Your task to perform on an android device: Show me popular games on the Play Store Image 0: 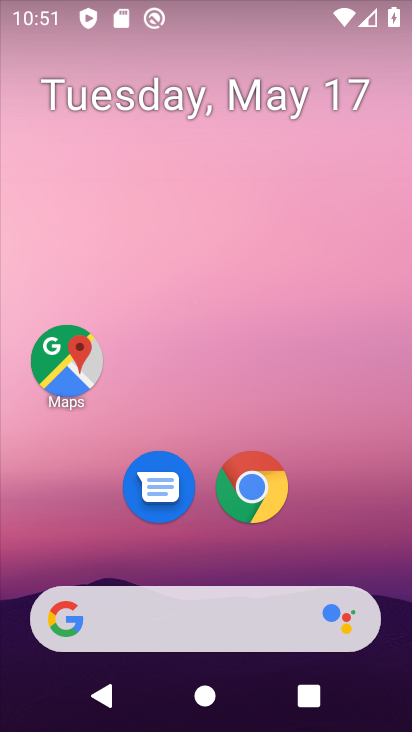
Step 0: press home button
Your task to perform on an android device: Show me popular games on the Play Store Image 1: 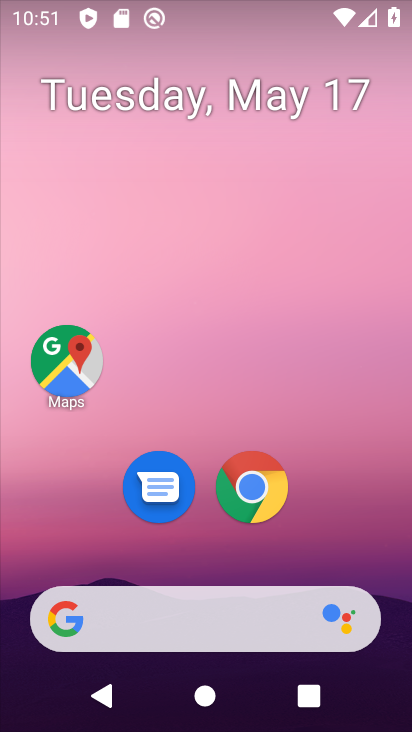
Step 1: drag from (354, 525) to (317, 95)
Your task to perform on an android device: Show me popular games on the Play Store Image 2: 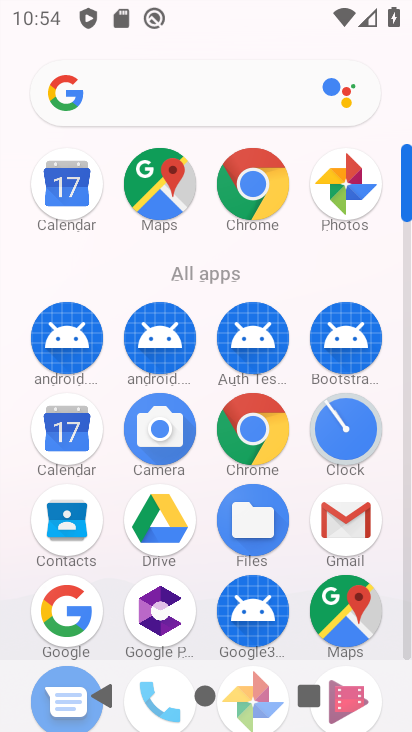
Step 2: click (404, 647)
Your task to perform on an android device: Show me popular games on the Play Store Image 3: 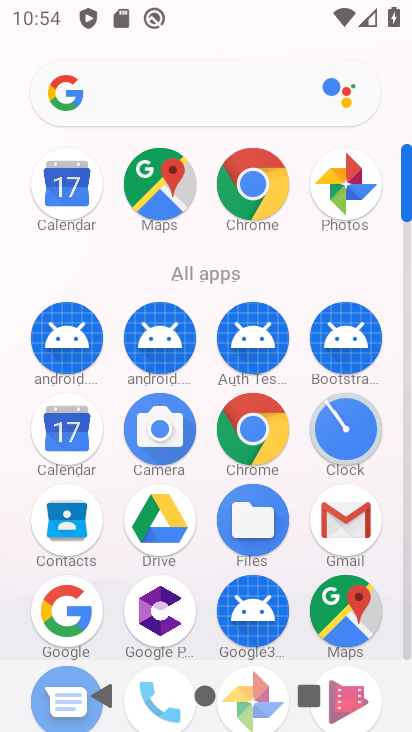
Step 3: click (404, 647)
Your task to perform on an android device: Show me popular games on the Play Store Image 4: 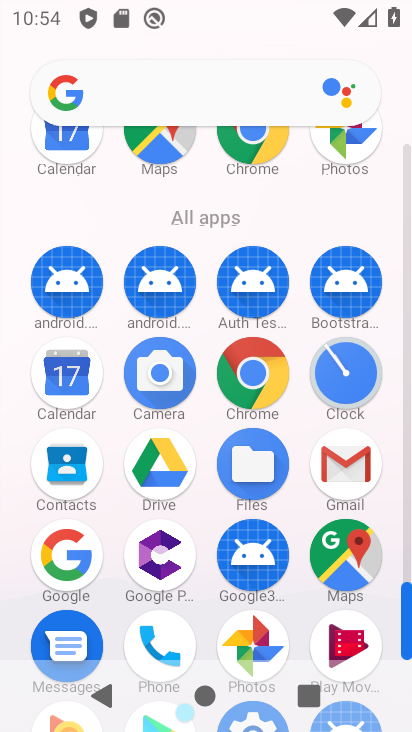
Step 4: click (404, 647)
Your task to perform on an android device: Show me popular games on the Play Store Image 5: 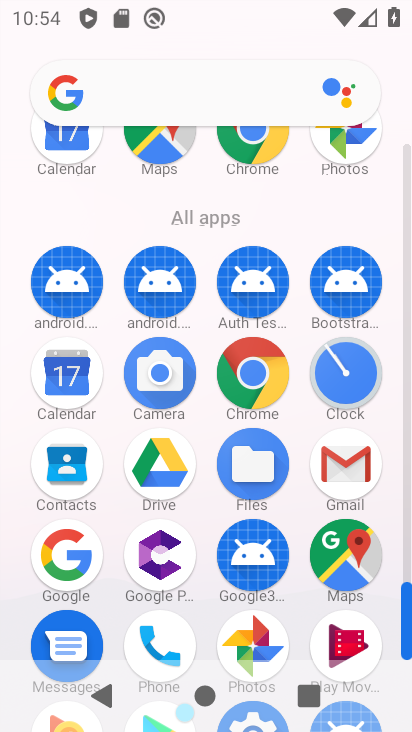
Step 5: click (404, 647)
Your task to perform on an android device: Show me popular games on the Play Store Image 6: 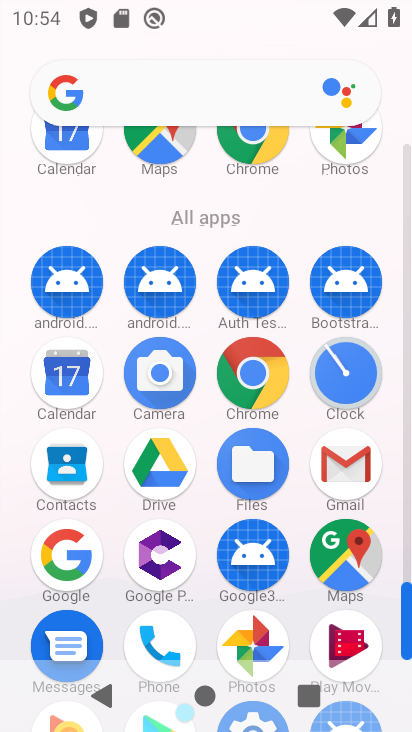
Step 6: click (404, 647)
Your task to perform on an android device: Show me popular games on the Play Store Image 7: 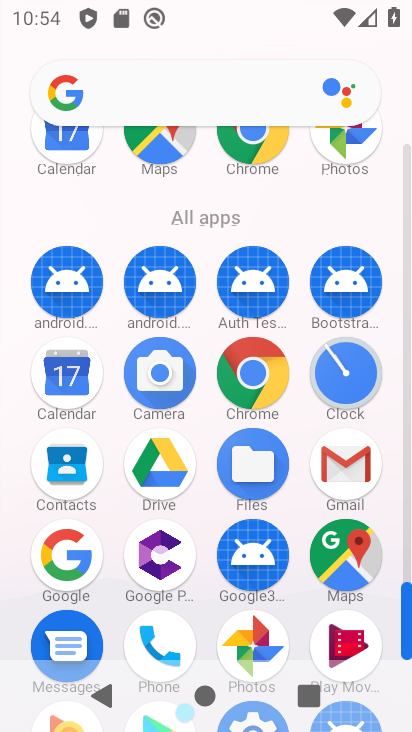
Step 7: click (404, 647)
Your task to perform on an android device: Show me popular games on the Play Store Image 8: 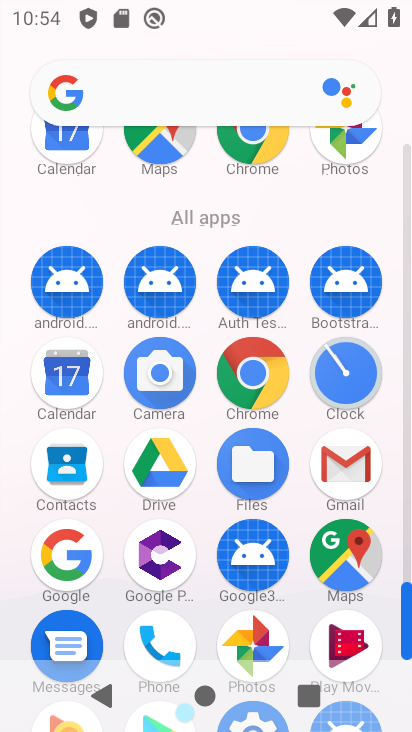
Step 8: drag from (404, 647) to (402, 501)
Your task to perform on an android device: Show me popular games on the Play Store Image 9: 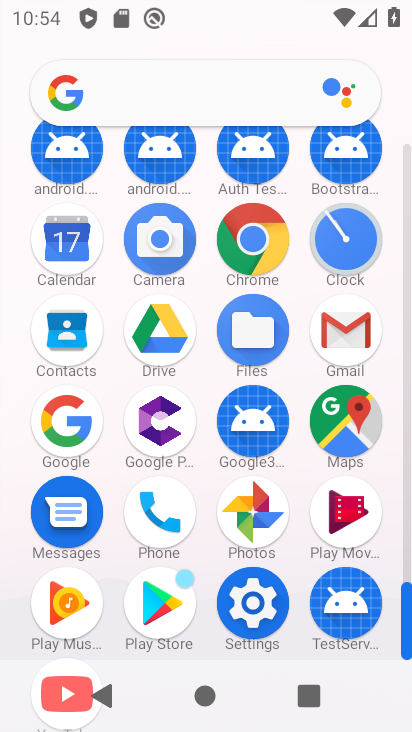
Step 9: click (153, 612)
Your task to perform on an android device: Show me popular games on the Play Store Image 10: 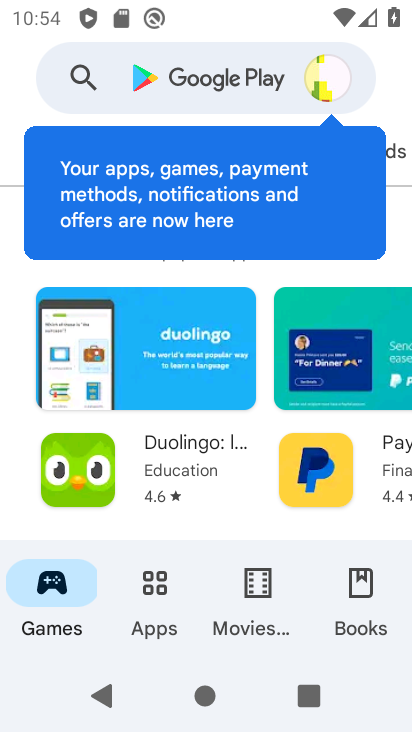
Step 10: click (202, 76)
Your task to perform on an android device: Show me popular games on the Play Store Image 11: 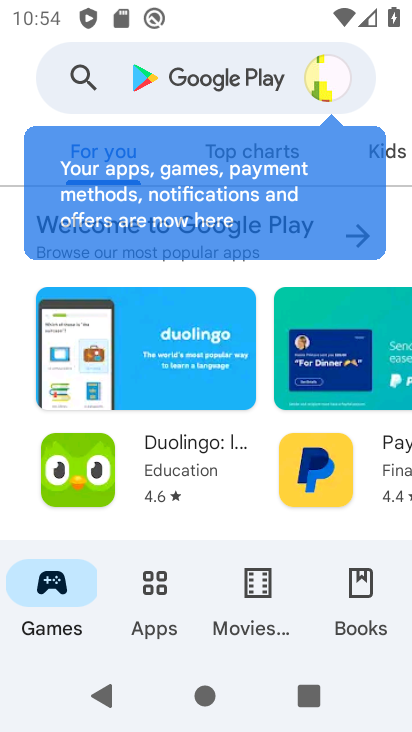
Step 11: click (202, 76)
Your task to perform on an android device: Show me popular games on the Play Store Image 12: 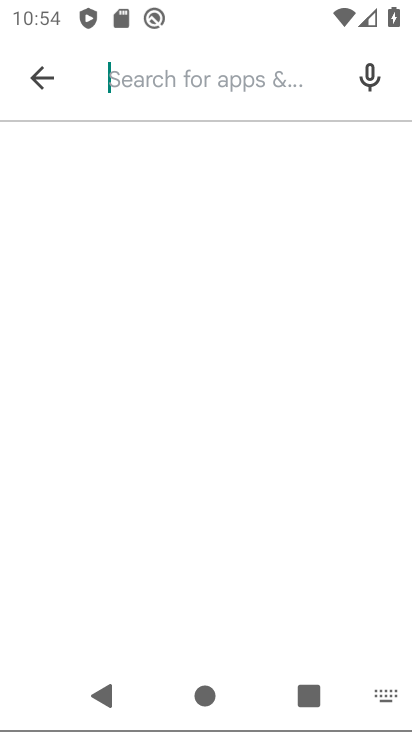
Step 12: click (202, 76)
Your task to perform on an android device: Show me popular games on the Play Store Image 13: 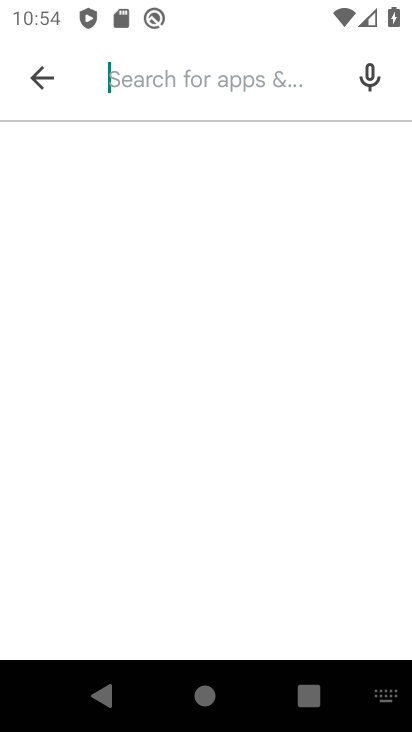
Step 13: click (202, 76)
Your task to perform on an android device: Show me popular games on the Play Store Image 14: 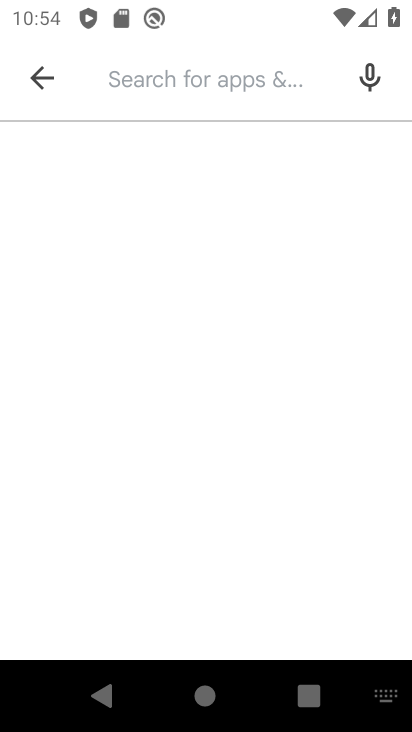
Step 14: click (202, 76)
Your task to perform on an android device: Show me popular games on the Play Store Image 15: 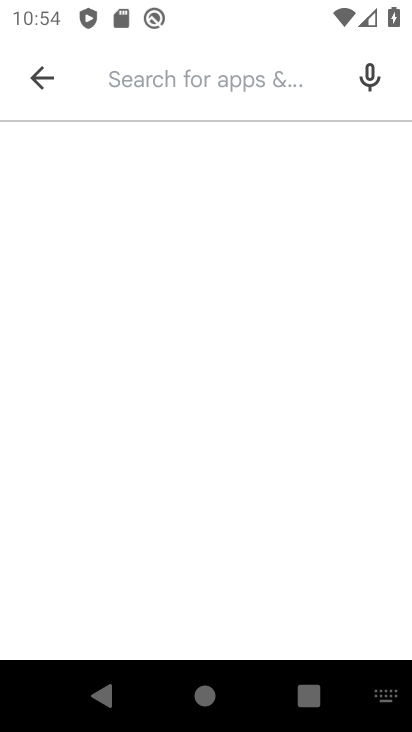
Step 15: type "popular games "
Your task to perform on an android device: Show me popular games on the Play Store Image 16: 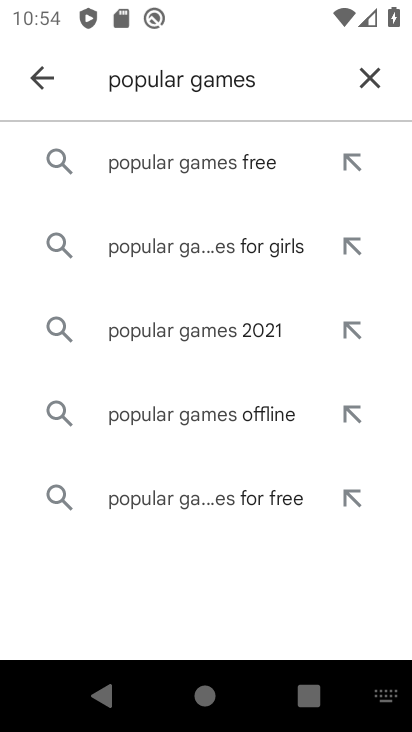
Step 16: click (143, 178)
Your task to perform on an android device: Show me popular games on the Play Store Image 17: 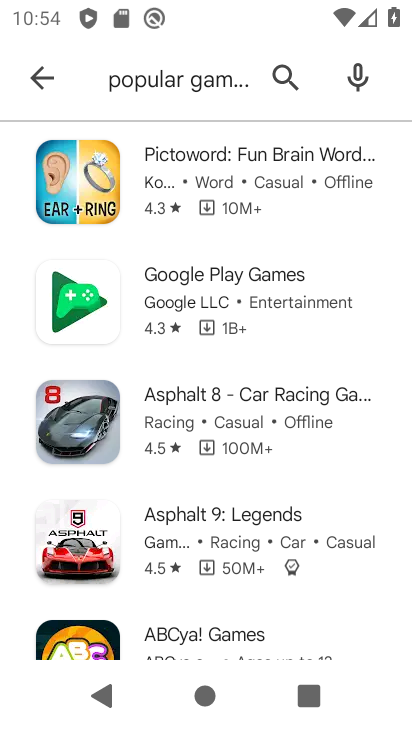
Step 17: task complete